Your task to perform on an android device: open a bookmark in the chrome app Image 0: 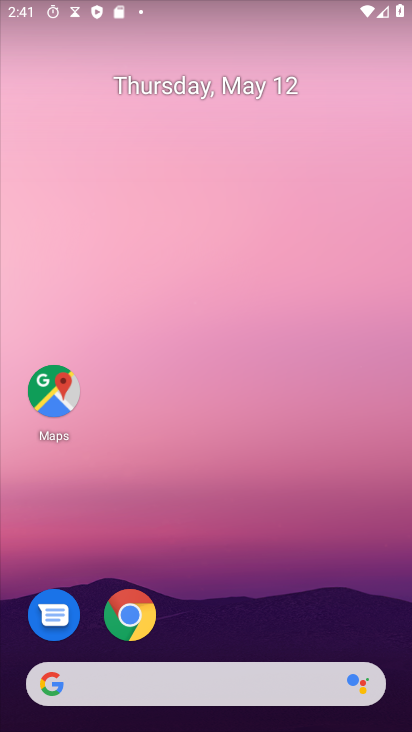
Step 0: click (133, 619)
Your task to perform on an android device: open a bookmark in the chrome app Image 1: 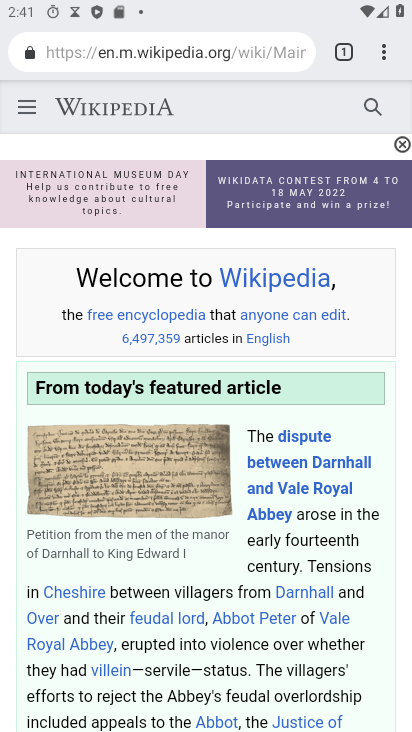
Step 1: click (384, 47)
Your task to perform on an android device: open a bookmark in the chrome app Image 2: 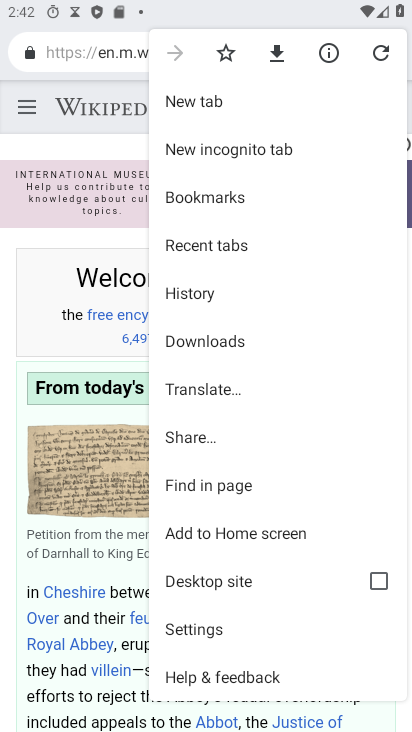
Step 2: click (179, 202)
Your task to perform on an android device: open a bookmark in the chrome app Image 3: 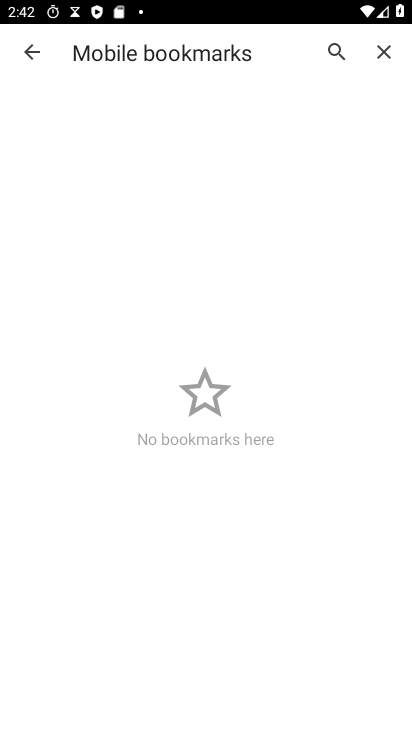
Step 3: click (179, 202)
Your task to perform on an android device: open a bookmark in the chrome app Image 4: 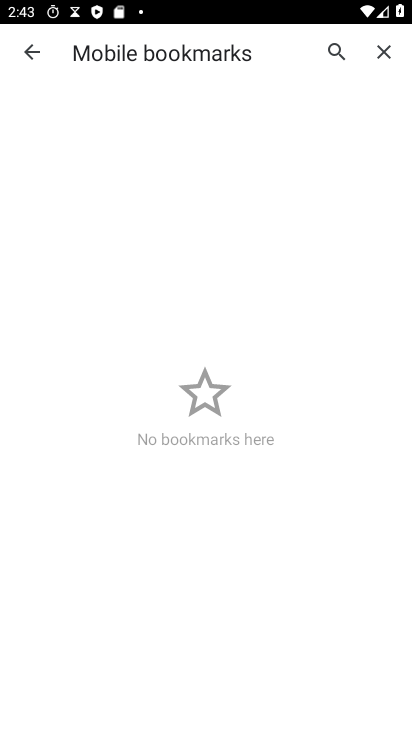
Step 4: click (191, 211)
Your task to perform on an android device: open a bookmark in the chrome app Image 5: 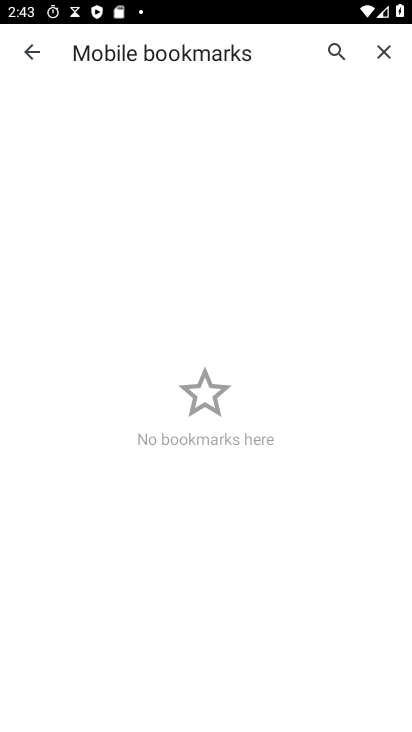
Step 5: click (191, 211)
Your task to perform on an android device: open a bookmark in the chrome app Image 6: 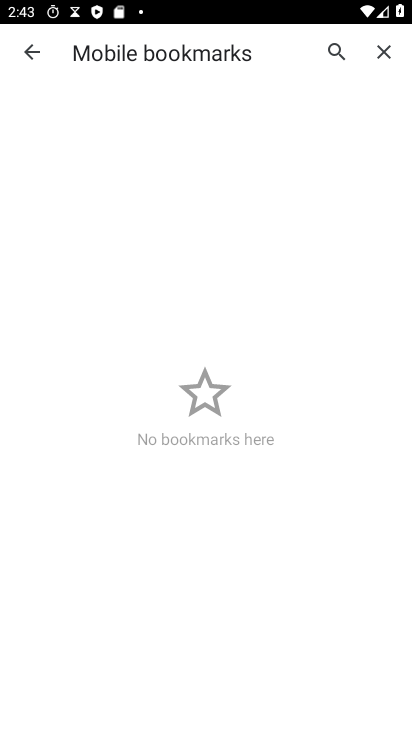
Step 6: task complete